Your task to perform on an android device: change timer sound Image 0: 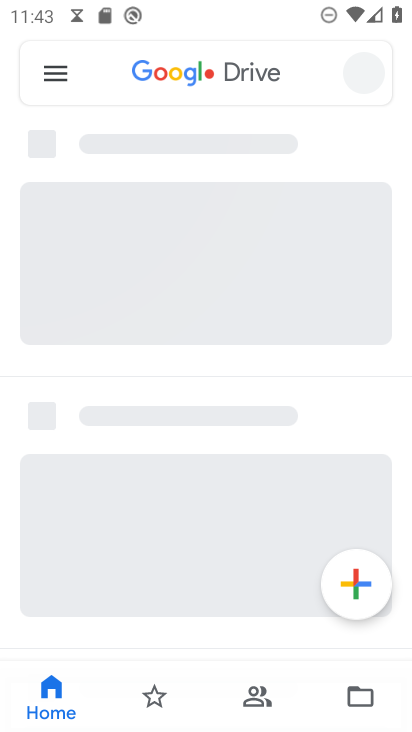
Step 0: press home button
Your task to perform on an android device: change timer sound Image 1: 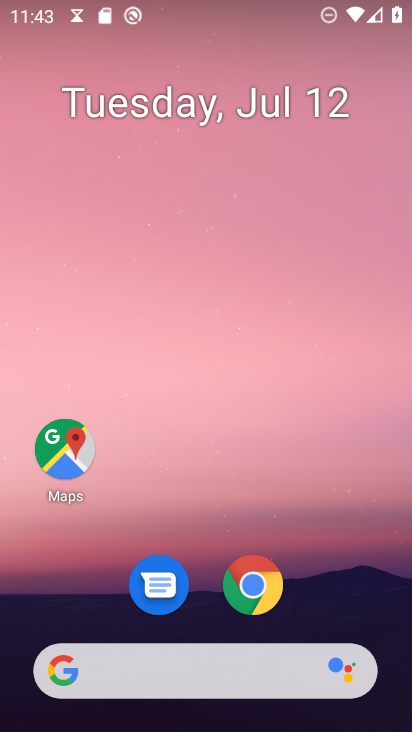
Step 1: drag from (209, 677) to (329, 63)
Your task to perform on an android device: change timer sound Image 2: 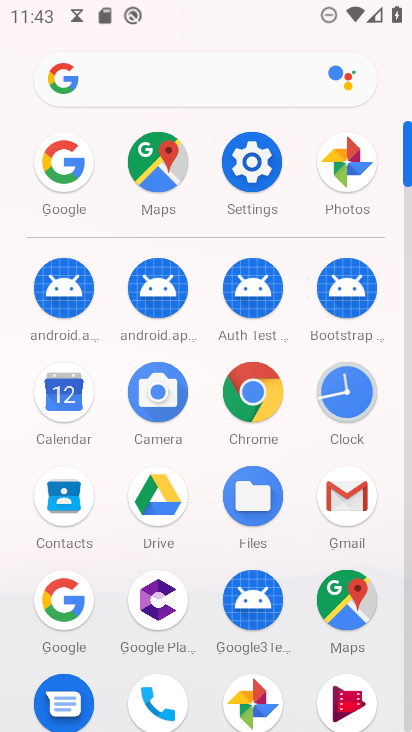
Step 2: click (350, 393)
Your task to perform on an android device: change timer sound Image 3: 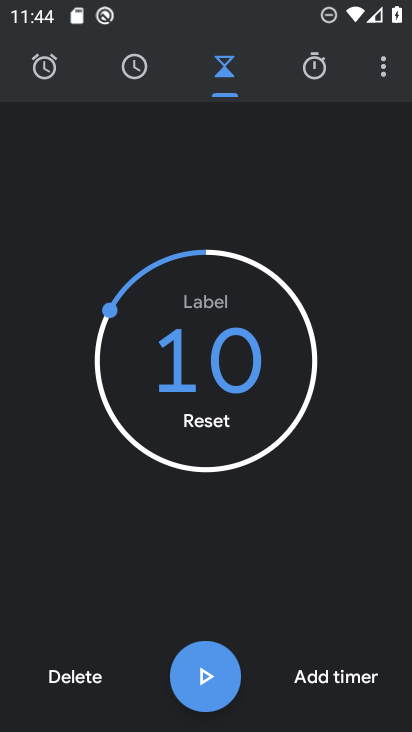
Step 3: click (385, 65)
Your task to perform on an android device: change timer sound Image 4: 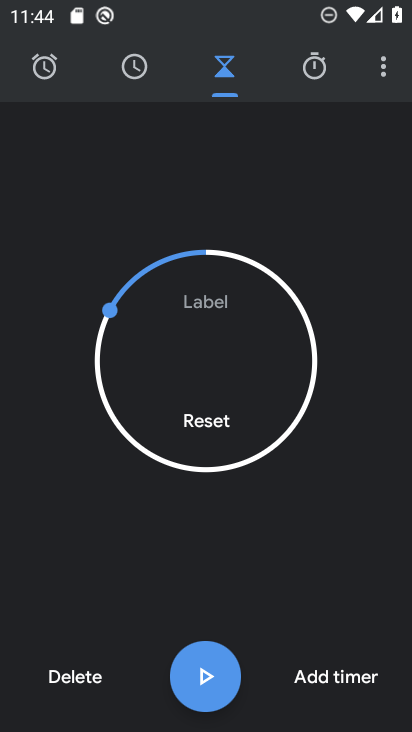
Step 4: click (378, 71)
Your task to perform on an android device: change timer sound Image 5: 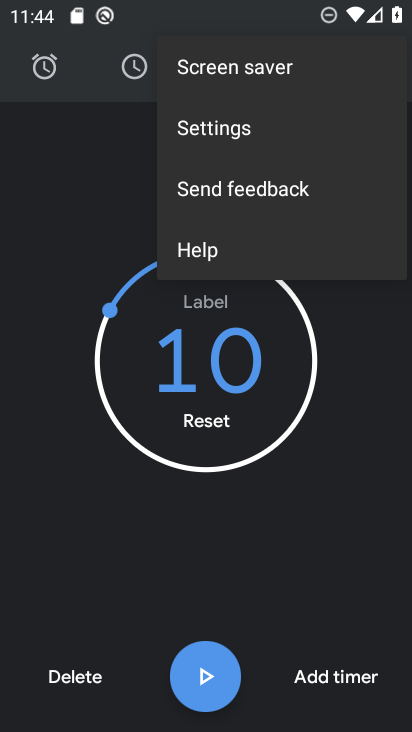
Step 5: click (229, 128)
Your task to perform on an android device: change timer sound Image 6: 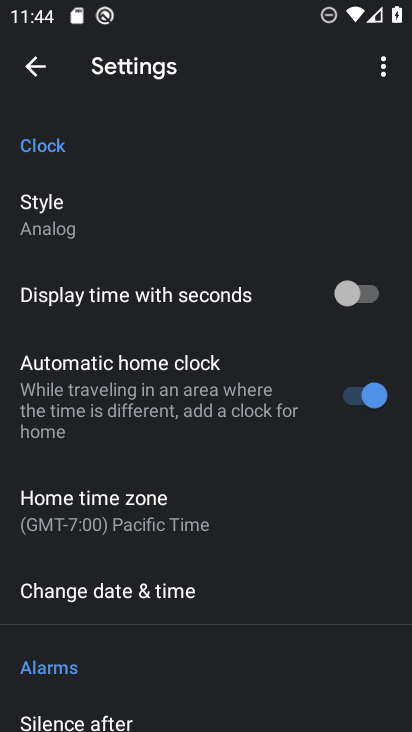
Step 6: drag from (285, 275) to (320, 94)
Your task to perform on an android device: change timer sound Image 7: 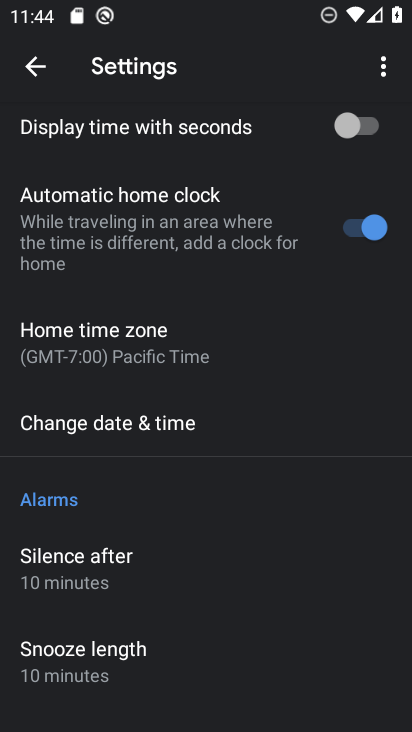
Step 7: drag from (197, 563) to (347, 53)
Your task to perform on an android device: change timer sound Image 8: 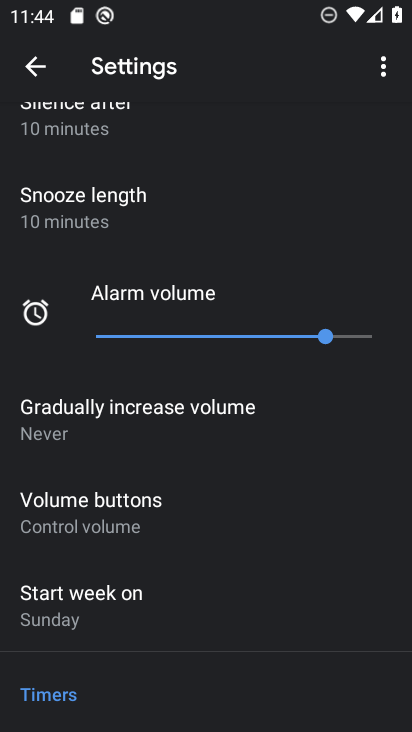
Step 8: drag from (201, 567) to (303, 168)
Your task to perform on an android device: change timer sound Image 9: 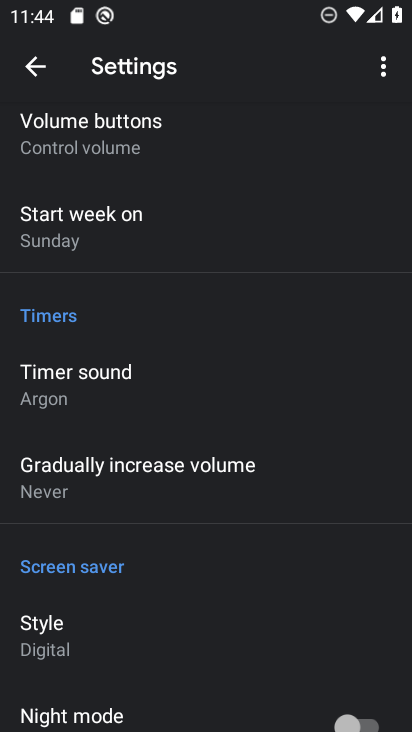
Step 9: click (116, 375)
Your task to perform on an android device: change timer sound Image 10: 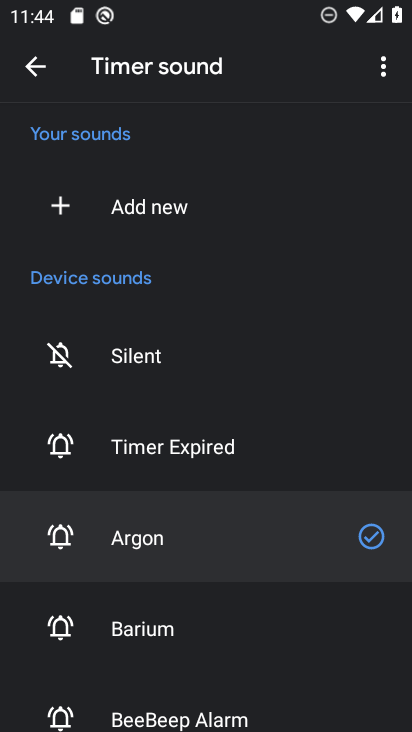
Step 10: click (143, 444)
Your task to perform on an android device: change timer sound Image 11: 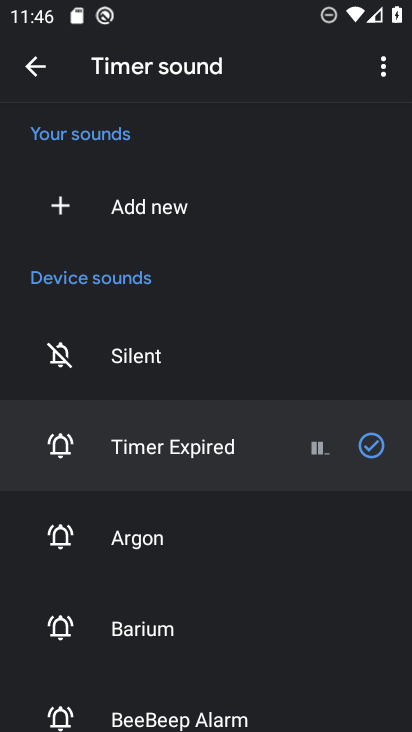
Step 11: task complete